Your task to perform on an android device: change timer sound Image 0: 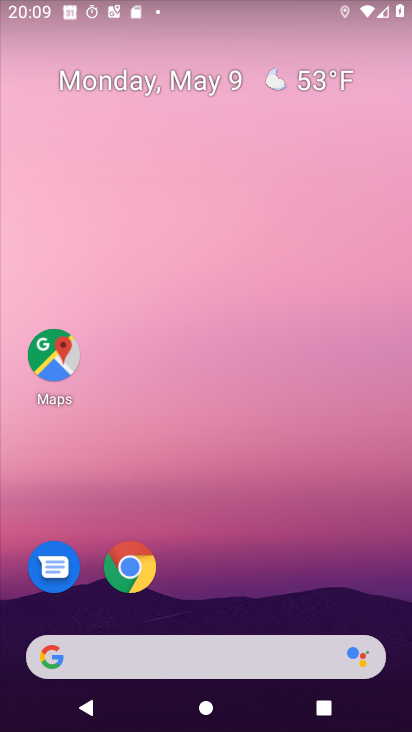
Step 0: drag from (278, 575) to (253, 23)
Your task to perform on an android device: change timer sound Image 1: 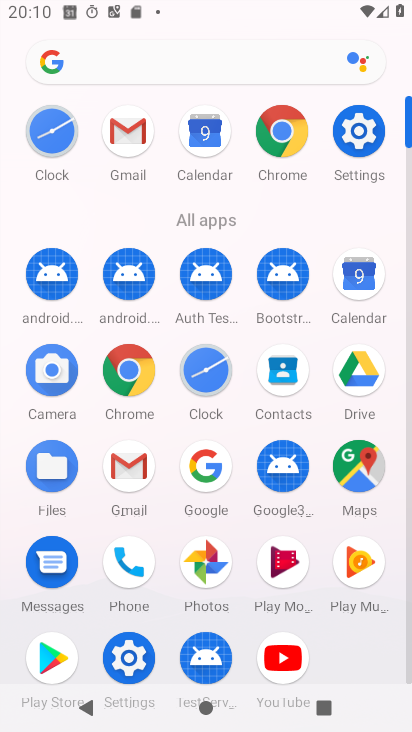
Step 1: click (219, 374)
Your task to perform on an android device: change timer sound Image 2: 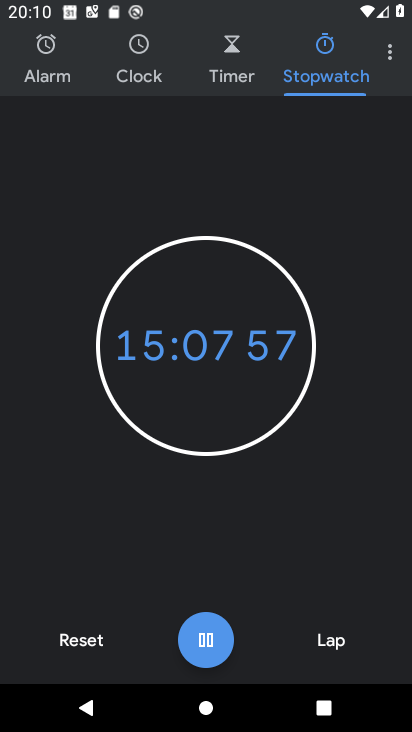
Step 2: click (390, 50)
Your task to perform on an android device: change timer sound Image 3: 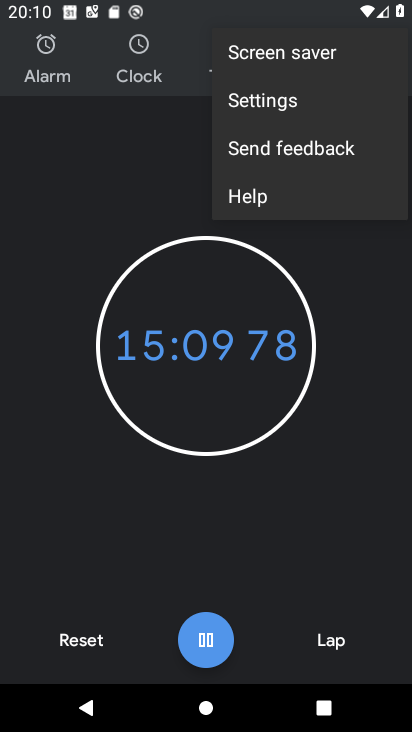
Step 3: click (346, 101)
Your task to perform on an android device: change timer sound Image 4: 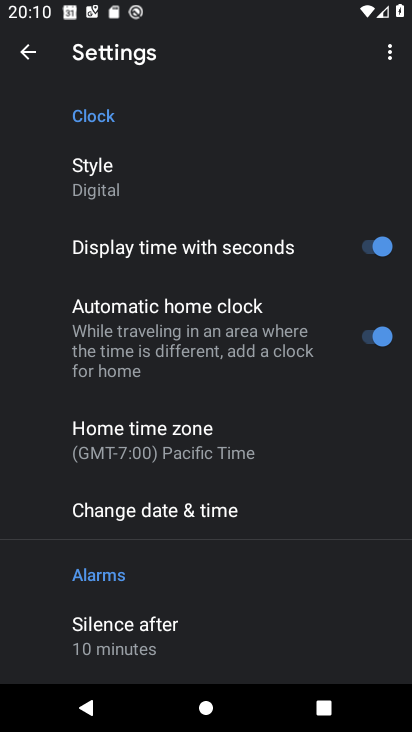
Step 4: drag from (230, 525) to (194, 365)
Your task to perform on an android device: change timer sound Image 5: 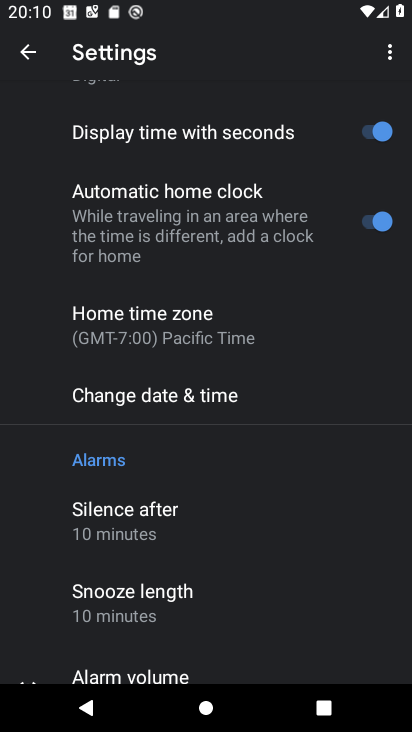
Step 5: drag from (168, 514) to (120, 318)
Your task to perform on an android device: change timer sound Image 6: 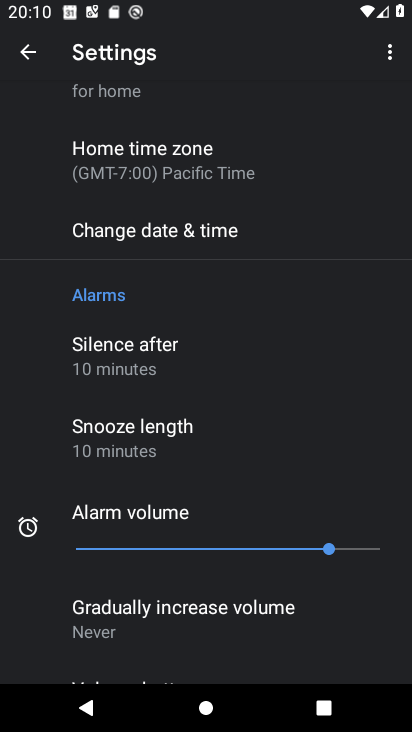
Step 6: drag from (159, 443) to (126, 269)
Your task to perform on an android device: change timer sound Image 7: 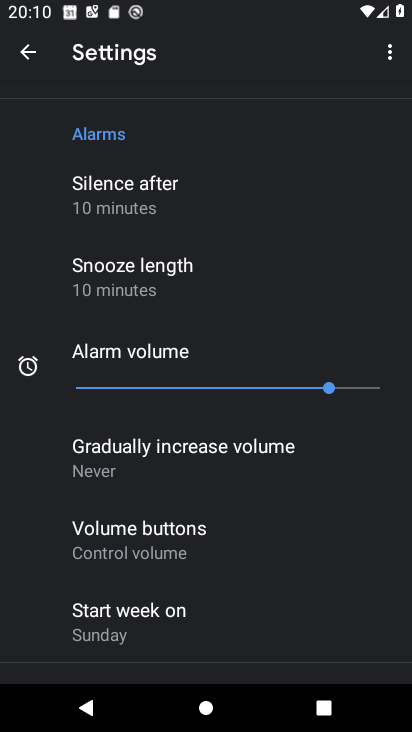
Step 7: drag from (173, 474) to (116, 331)
Your task to perform on an android device: change timer sound Image 8: 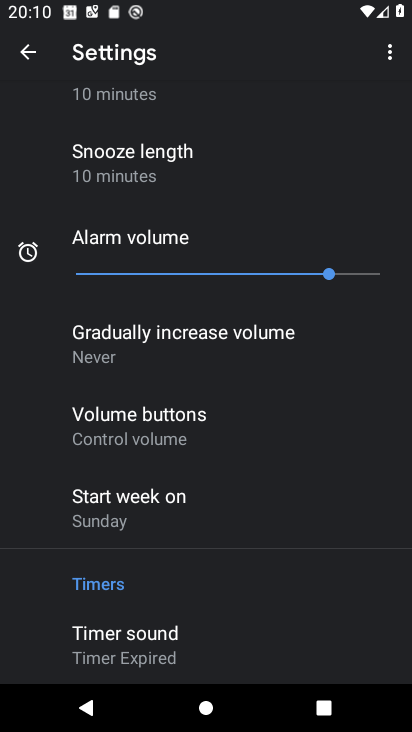
Step 8: click (119, 644)
Your task to perform on an android device: change timer sound Image 9: 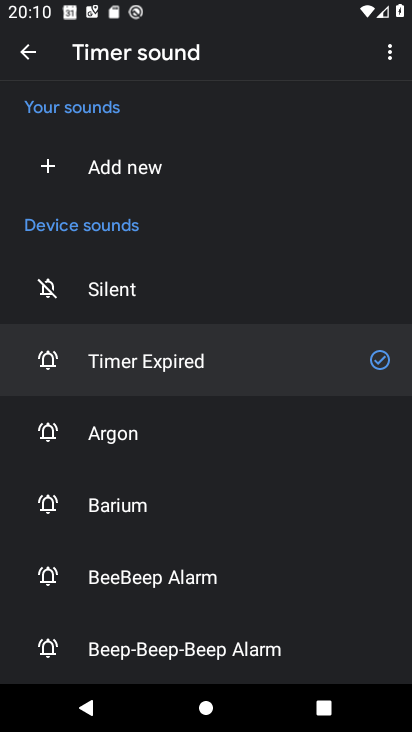
Step 9: click (143, 451)
Your task to perform on an android device: change timer sound Image 10: 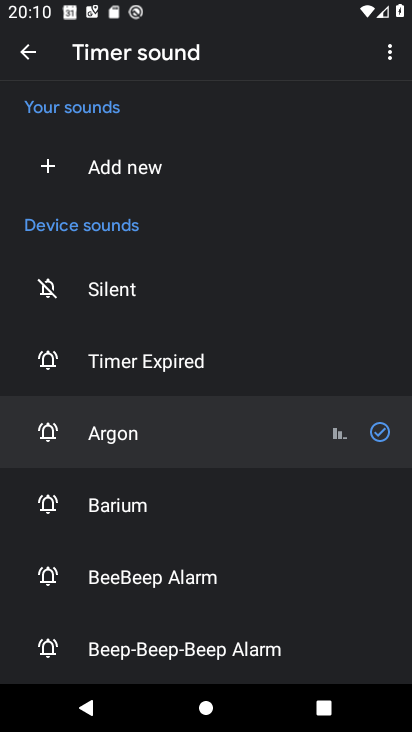
Step 10: task complete